Your task to perform on an android device: Search for vegetarian restaurants on Maps Image 0: 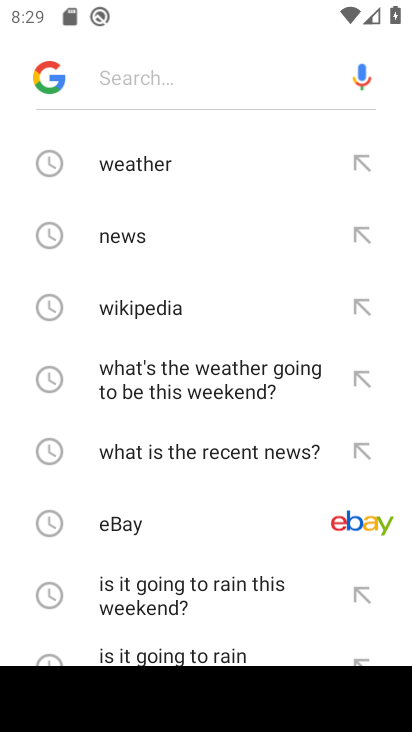
Step 0: press home button
Your task to perform on an android device: Search for vegetarian restaurants on Maps Image 1: 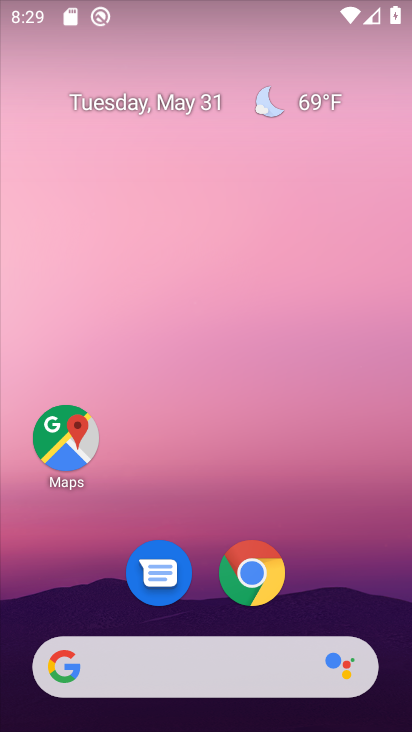
Step 1: click (54, 439)
Your task to perform on an android device: Search for vegetarian restaurants on Maps Image 2: 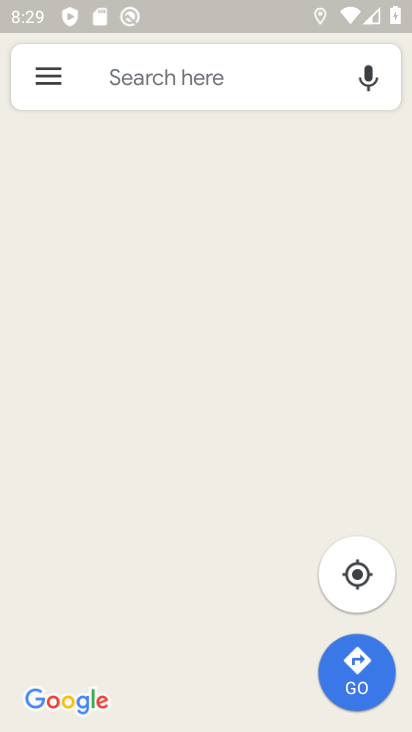
Step 2: click (180, 85)
Your task to perform on an android device: Search for vegetarian restaurants on Maps Image 3: 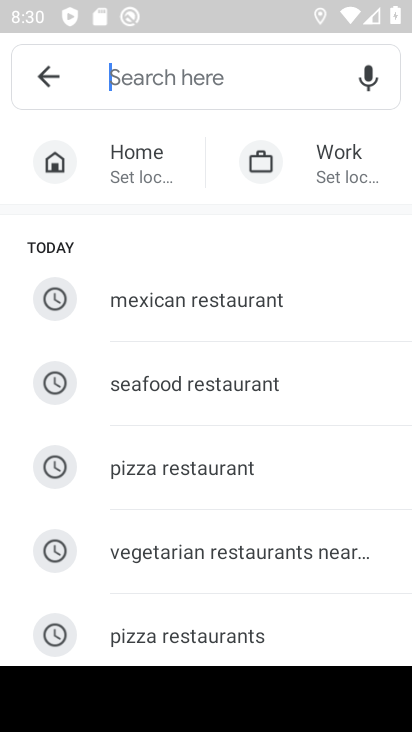
Step 3: type "vege"
Your task to perform on an android device: Search for vegetarian restaurants on Maps Image 4: 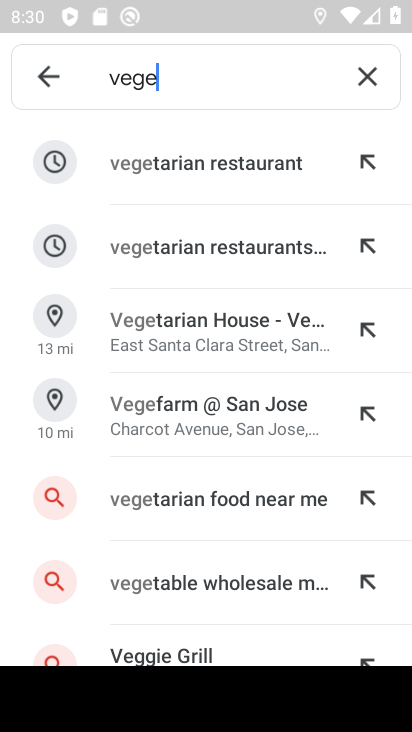
Step 4: click (216, 161)
Your task to perform on an android device: Search for vegetarian restaurants on Maps Image 5: 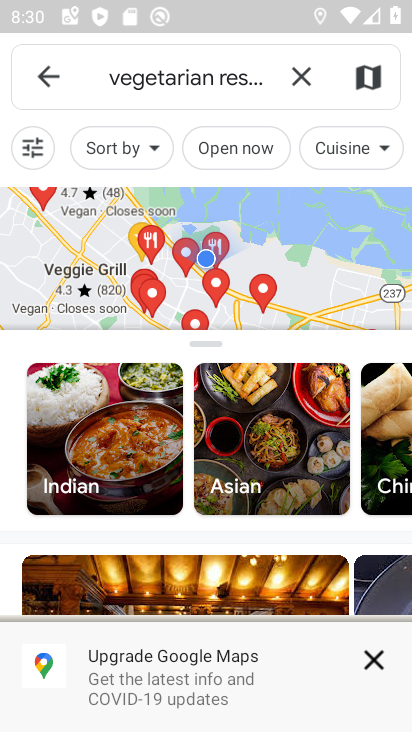
Step 5: task complete